Your task to perform on an android device: What's the weather today? Image 0: 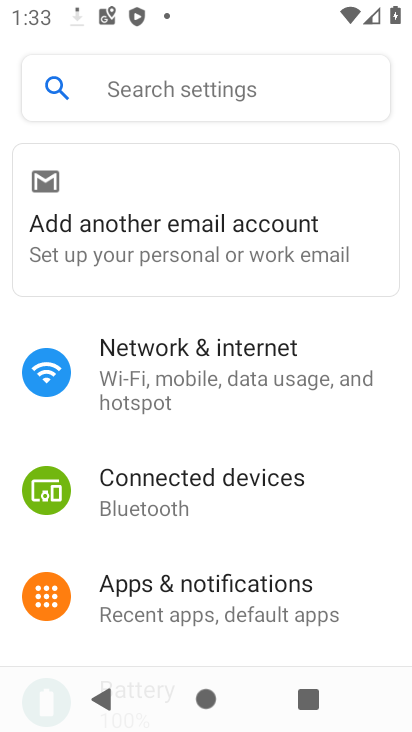
Step 0: press home button
Your task to perform on an android device: What's the weather today? Image 1: 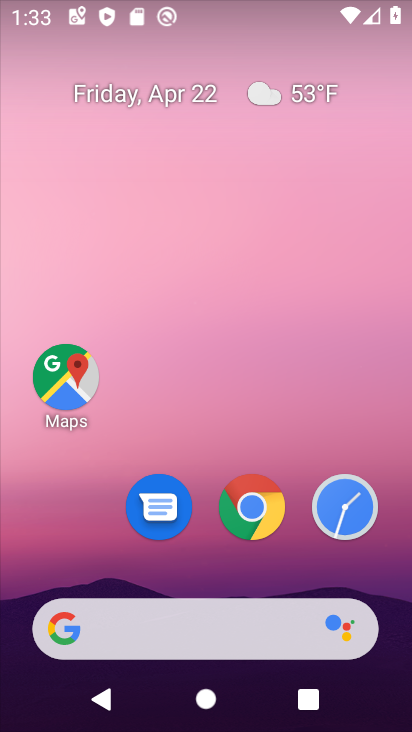
Step 1: drag from (186, 569) to (197, 187)
Your task to perform on an android device: What's the weather today? Image 2: 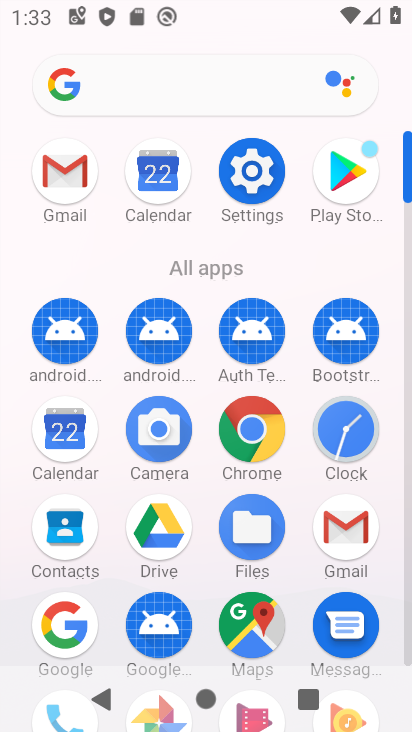
Step 2: click (70, 630)
Your task to perform on an android device: What's the weather today? Image 3: 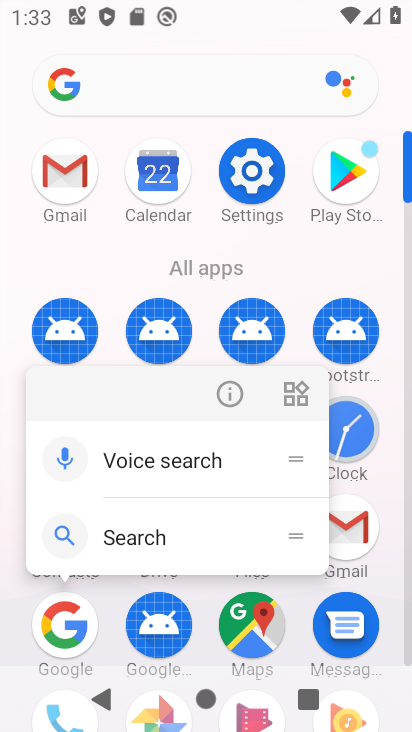
Step 3: click (75, 614)
Your task to perform on an android device: What's the weather today? Image 4: 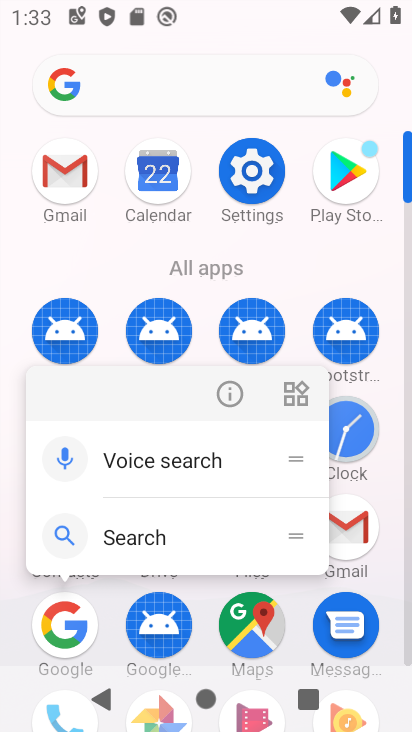
Step 4: click (67, 620)
Your task to perform on an android device: What's the weather today? Image 5: 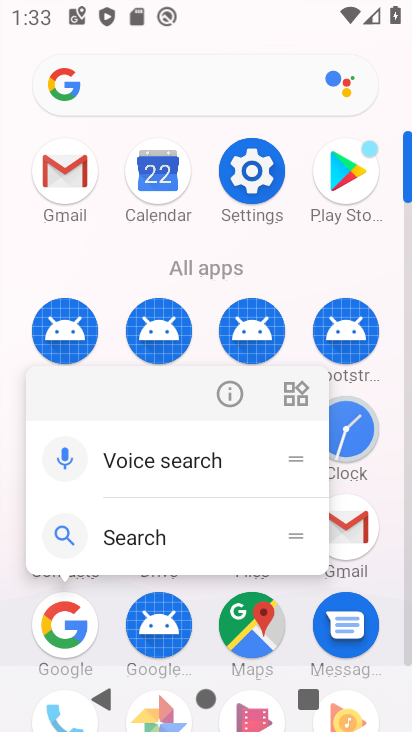
Step 5: click (61, 625)
Your task to perform on an android device: What's the weather today? Image 6: 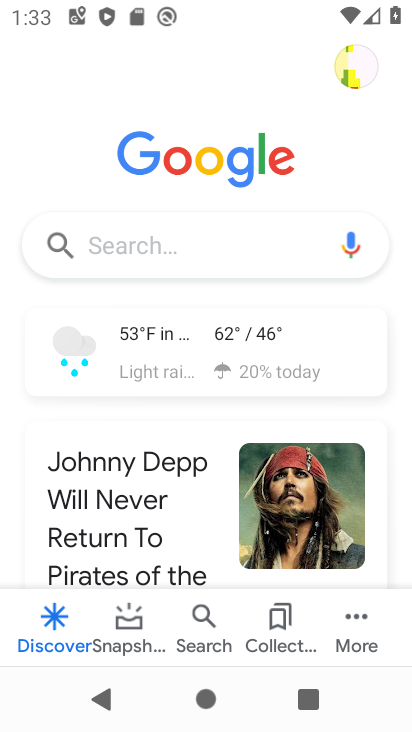
Step 6: click (144, 356)
Your task to perform on an android device: What's the weather today? Image 7: 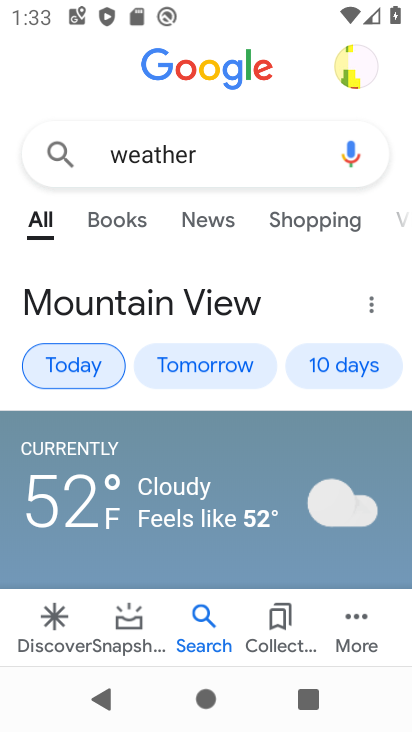
Step 7: task complete